Your task to perform on an android device: Open calendar and show me the fourth week of next month Image 0: 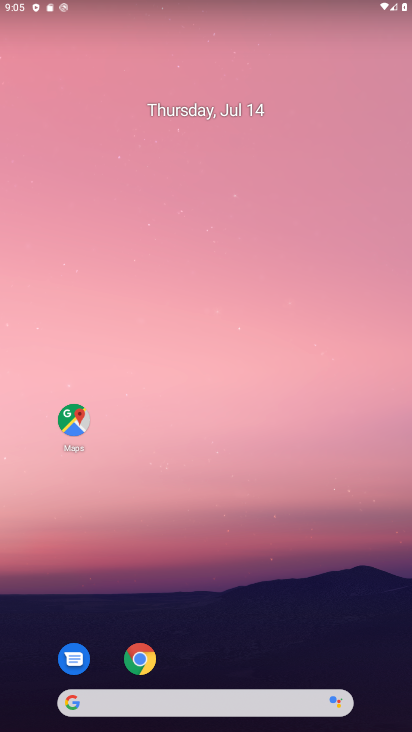
Step 0: drag from (287, 636) to (256, 119)
Your task to perform on an android device: Open calendar and show me the fourth week of next month Image 1: 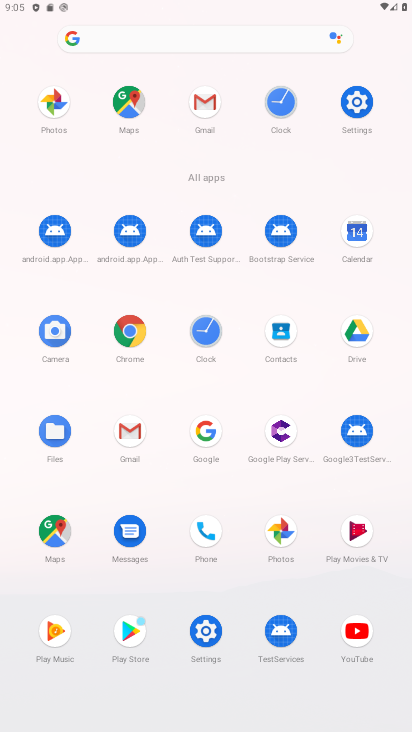
Step 1: click (362, 228)
Your task to perform on an android device: Open calendar and show me the fourth week of next month Image 2: 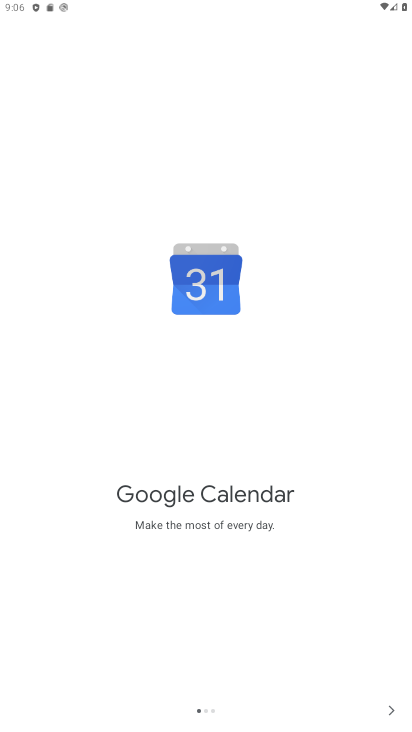
Step 2: click (397, 712)
Your task to perform on an android device: Open calendar and show me the fourth week of next month Image 3: 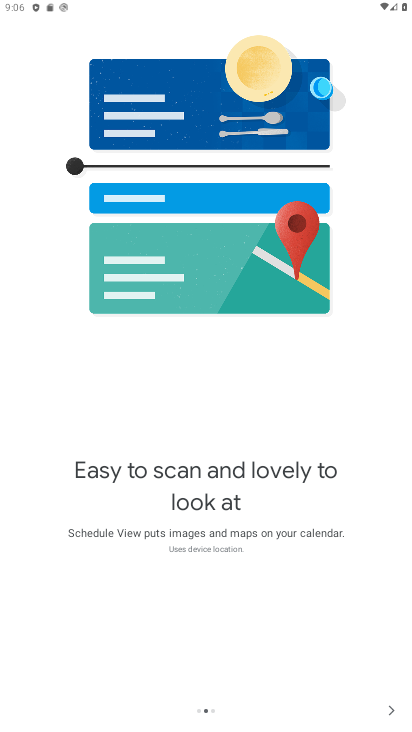
Step 3: click (388, 703)
Your task to perform on an android device: Open calendar and show me the fourth week of next month Image 4: 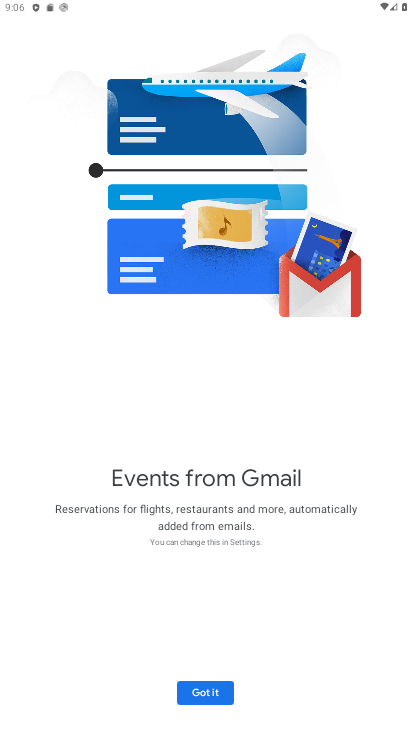
Step 4: click (222, 691)
Your task to perform on an android device: Open calendar and show me the fourth week of next month Image 5: 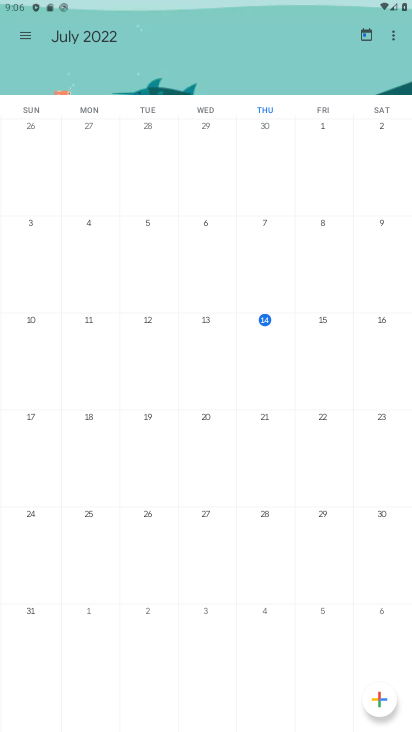
Step 5: click (82, 39)
Your task to perform on an android device: Open calendar and show me the fourth week of next month Image 6: 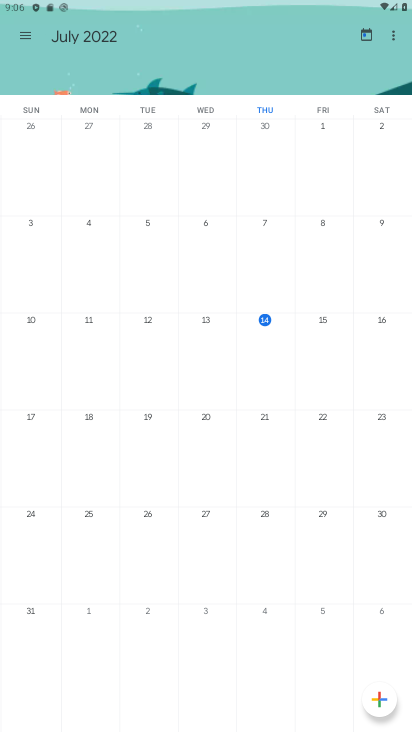
Step 6: drag from (387, 248) to (7, 271)
Your task to perform on an android device: Open calendar and show me the fourth week of next month Image 7: 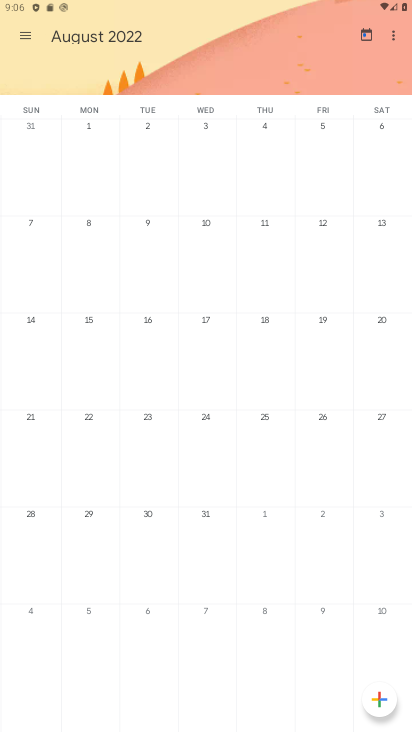
Step 7: click (120, 37)
Your task to perform on an android device: Open calendar and show me the fourth week of next month Image 8: 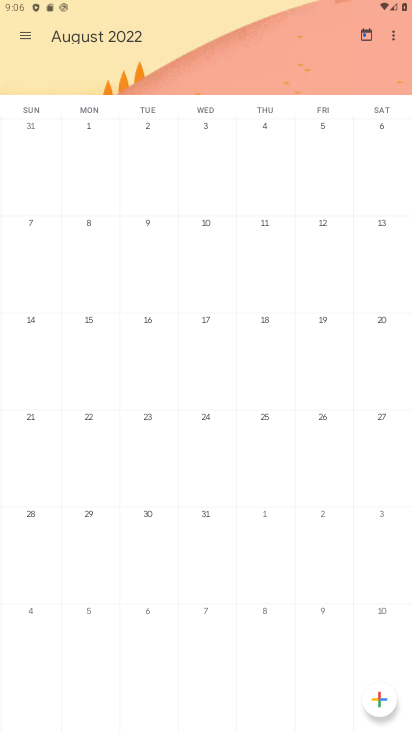
Step 8: click (120, 37)
Your task to perform on an android device: Open calendar and show me the fourth week of next month Image 9: 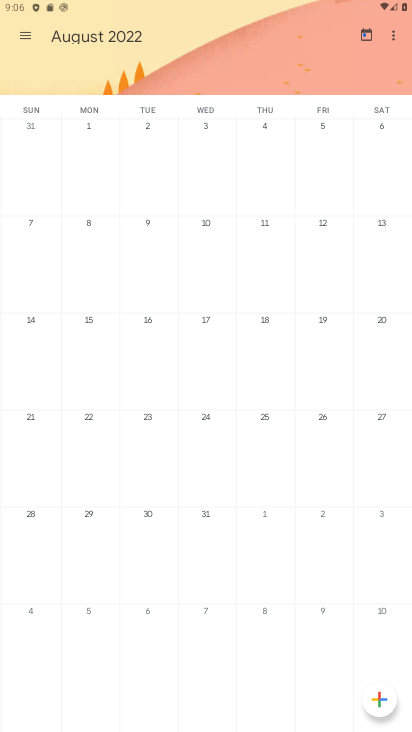
Step 9: click (202, 417)
Your task to perform on an android device: Open calendar and show me the fourth week of next month Image 10: 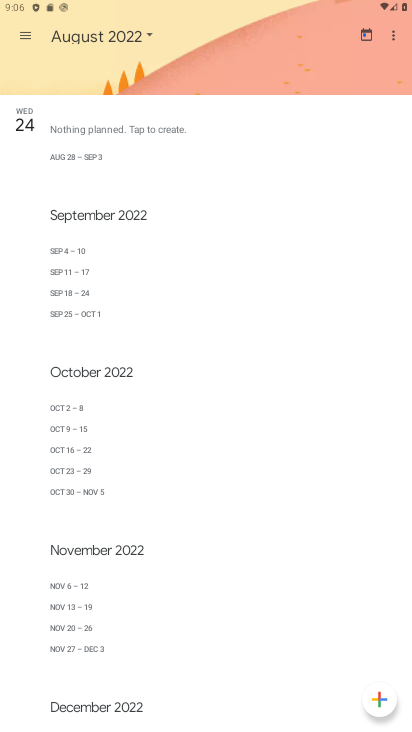
Step 10: task complete